Your task to perform on an android device: change alarm snooze length Image 0: 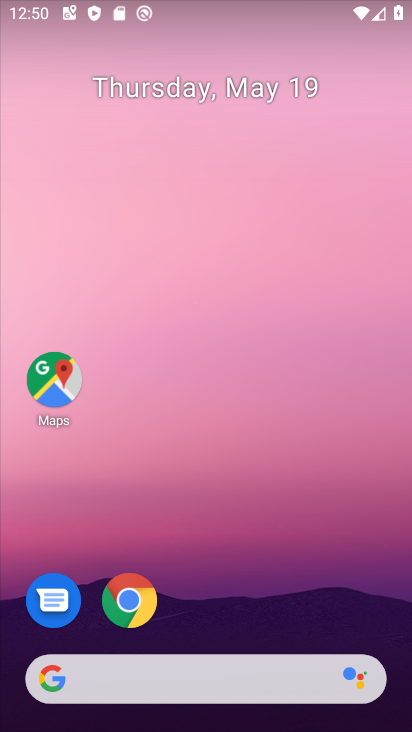
Step 0: drag from (335, 599) to (259, 107)
Your task to perform on an android device: change alarm snooze length Image 1: 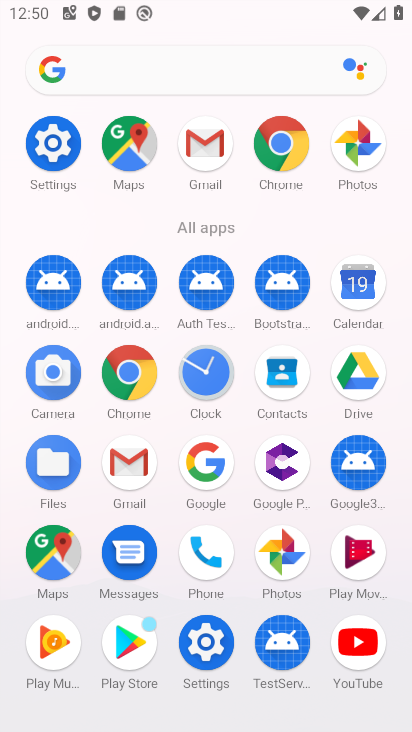
Step 1: click (196, 396)
Your task to perform on an android device: change alarm snooze length Image 2: 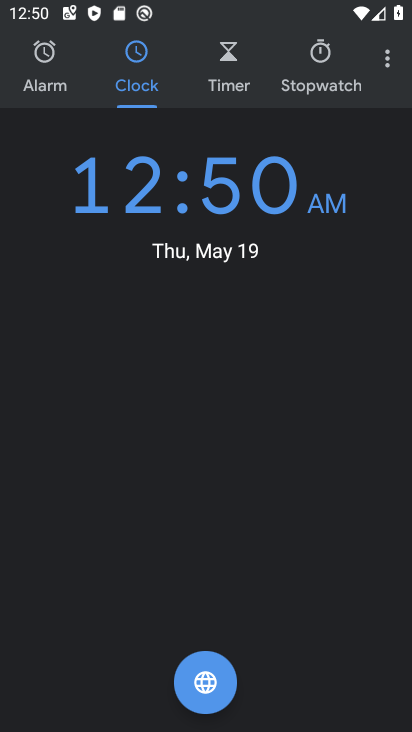
Step 2: click (384, 72)
Your task to perform on an android device: change alarm snooze length Image 3: 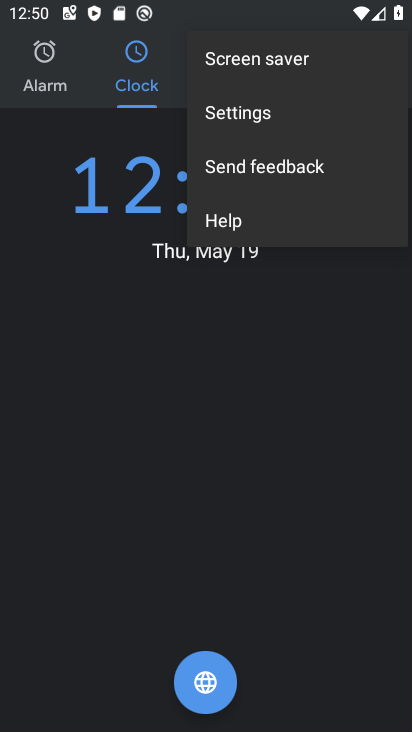
Step 3: click (291, 115)
Your task to perform on an android device: change alarm snooze length Image 4: 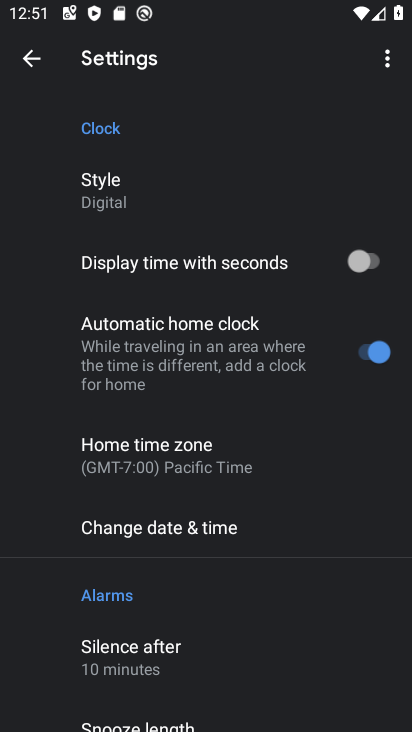
Step 4: click (178, 712)
Your task to perform on an android device: change alarm snooze length Image 5: 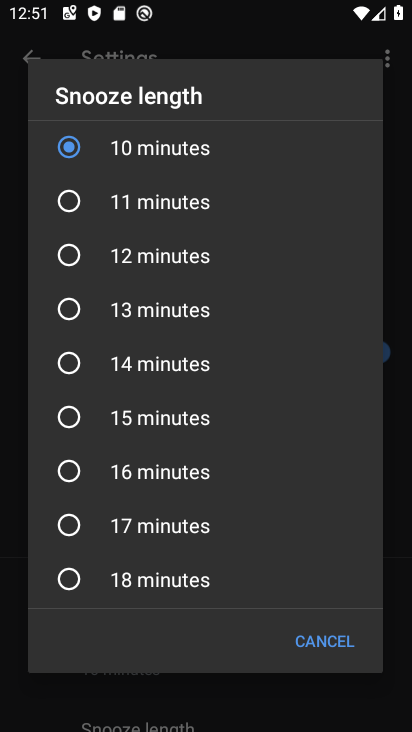
Step 5: click (175, 458)
Your task to perform on an android device: change alarm snooze length Image 6: 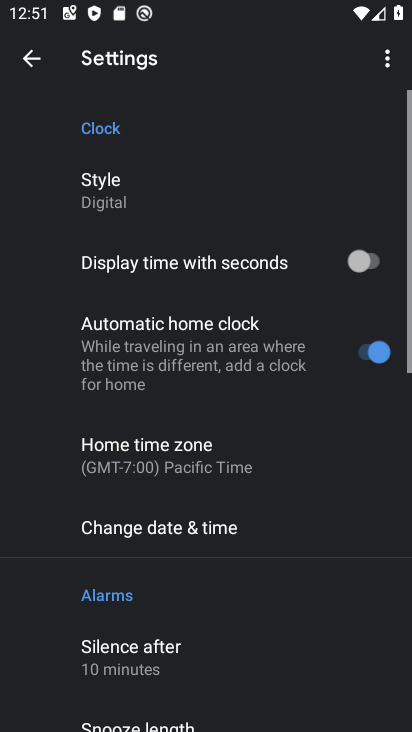
Step 6: task complete